Your task to perform on an android device: toggle show notifications on the lock screen Image 0: 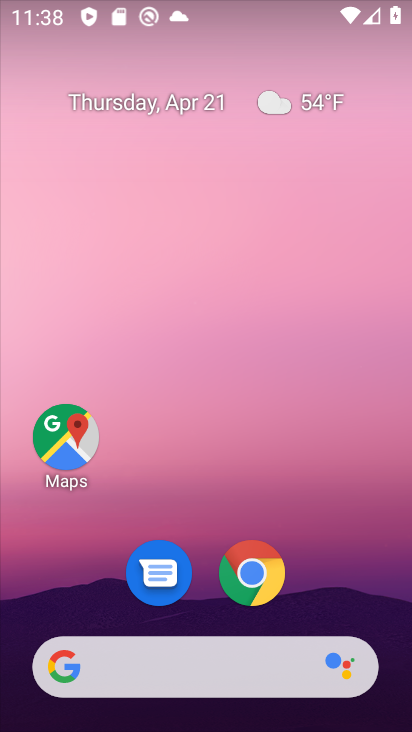
Step 0: drag from (349, 507) to (356, 96)
Your task to perform on an android device: toggle show notifications on the lock screen Image 1: 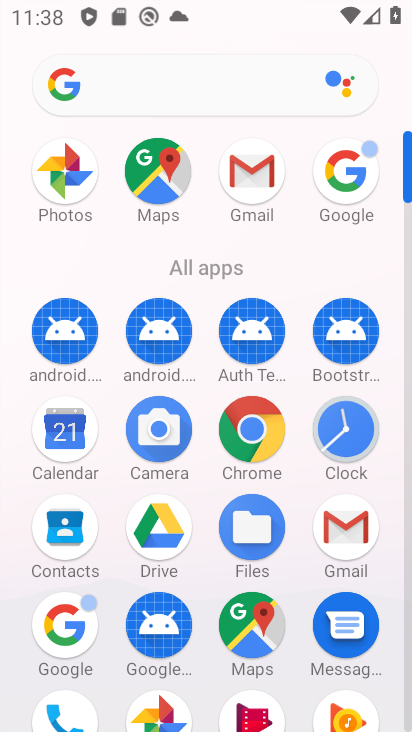
Step 1: drag from (293, 579) to (306, 335)
Your task to perform on an android device: toggle show notifications on the lock screen Image 2: 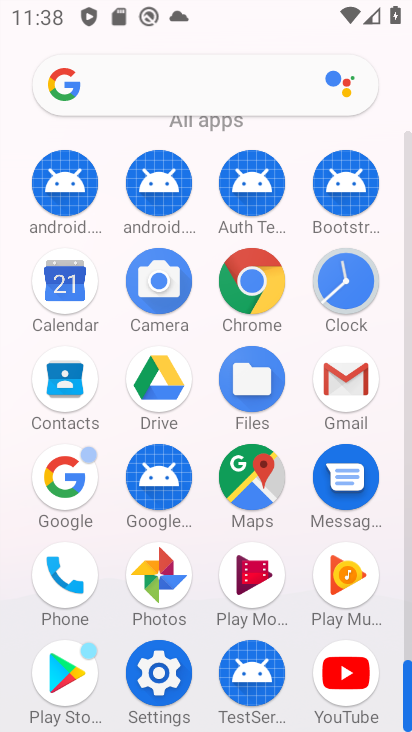
Step 2: click (149, 661)
Your task to perform on an android device: toggle show notifications on the lock screen Image 3: 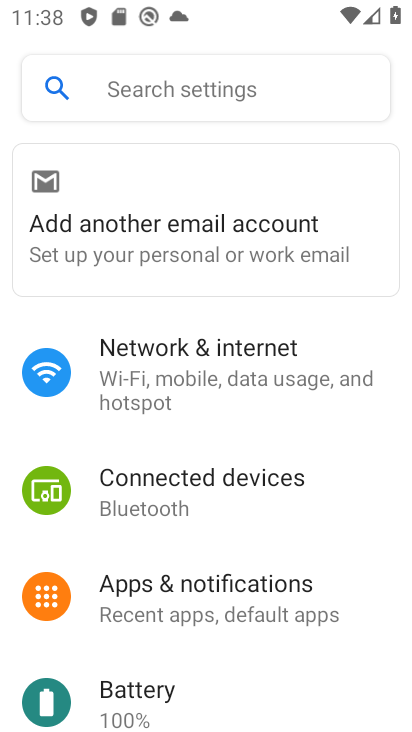
Step 3: drag from (293, 504) to (301, 348)
Your task to perform on an android device: toggle show notifications on the lock screen Image 4: 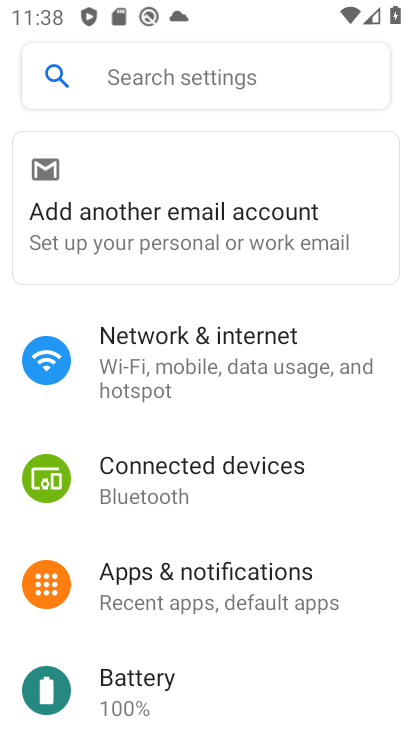
Step 4: drag from (248, 657) to (284, 383)
Your task to perform on an android device: toggle show notifications on the lock screen Image 5: 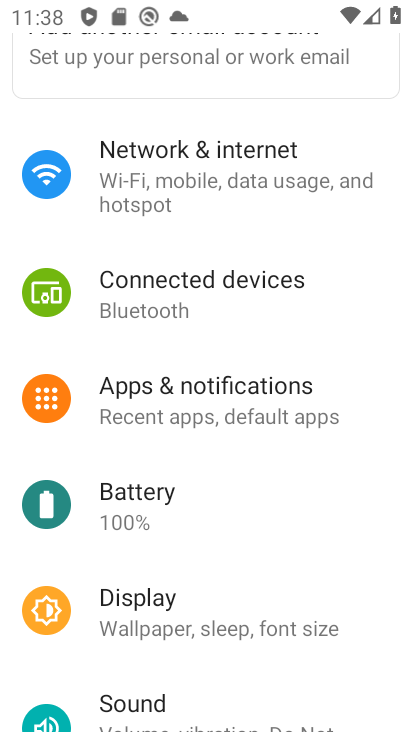
Step 5: drag from (250, 568) to (313, 280)
Your task to perform on an android device: toggle show notifications on the lock screen Image 6: 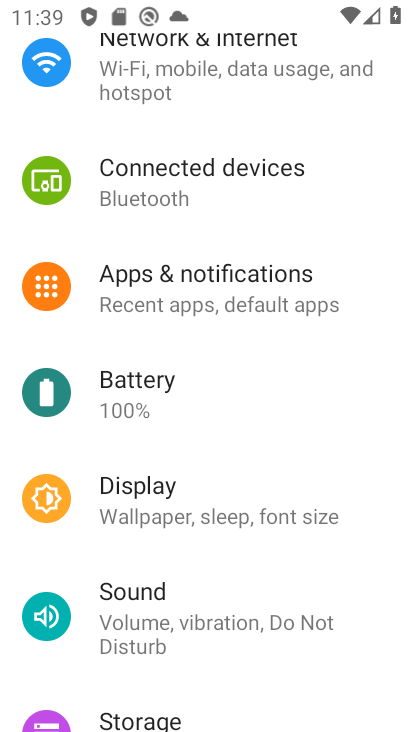
Step 6: click (265, 301)
Your task to perform on an android device: toggle show notifications on the lock screen Image 7: 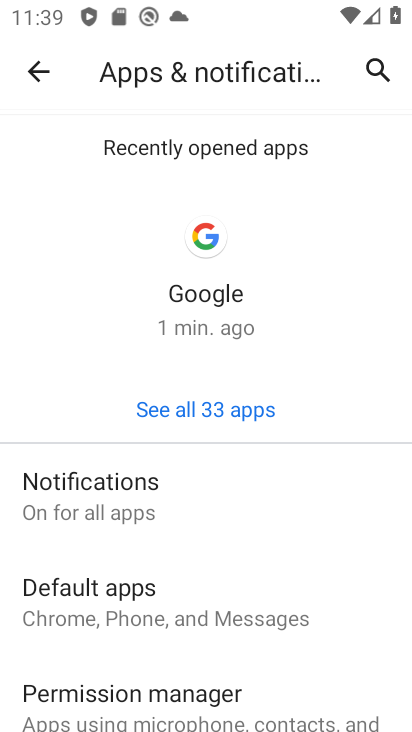
Step 7: click (132, 481)
Your task to perform on an android device: toggle show notifications on the lock screen Image 8: 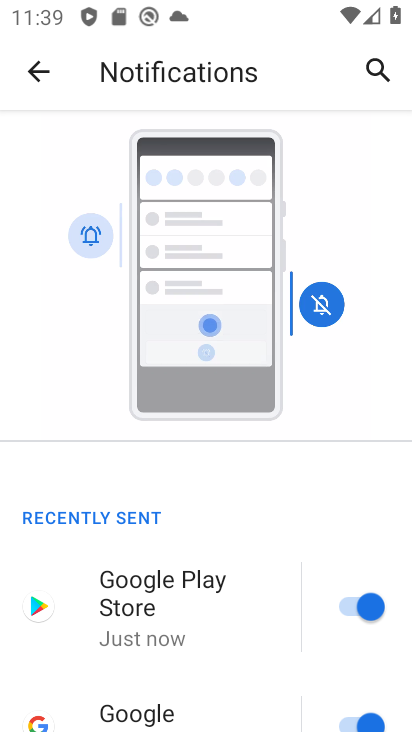
Step 8: drag from (254, 419) to (328, 158)
Your task to perform on an android device: toggle show notifications on the lock screen Image 9: 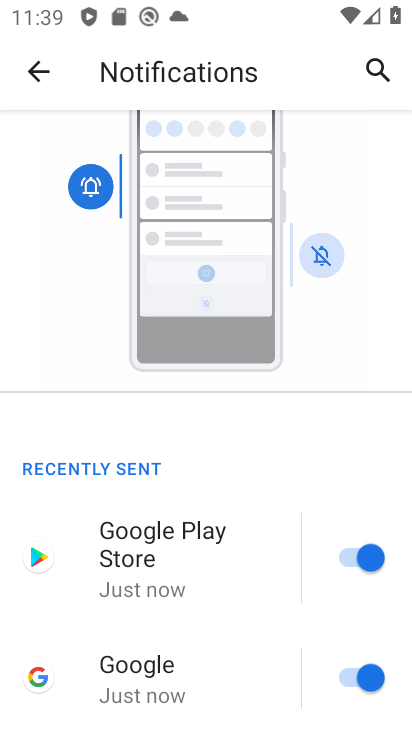
Step 9: drag from (222, 660) to (280, 300)
Your task to perform on an android device: toggle show notifications on the lock screen Image 10: 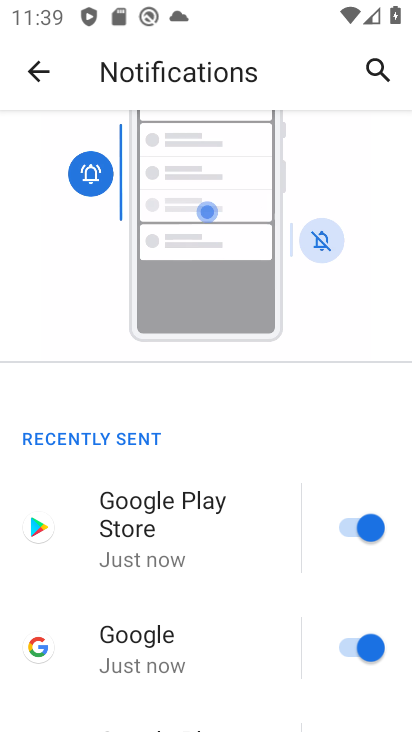
Step 10: drag from (235, 680) to (321, 343)
Your task to perform on an android device: toggle show notifications on the lock screen Image 11: 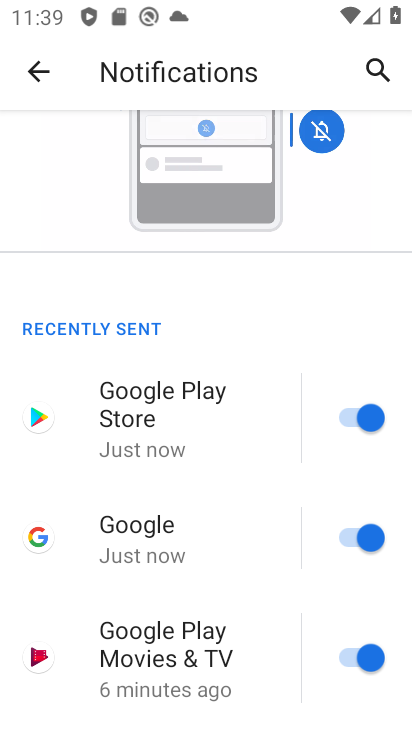
Step 11: drag from (249, 714) to (305, 288)
Your task to perform on an android device: toggle show notifications on the lock screen Image 12: 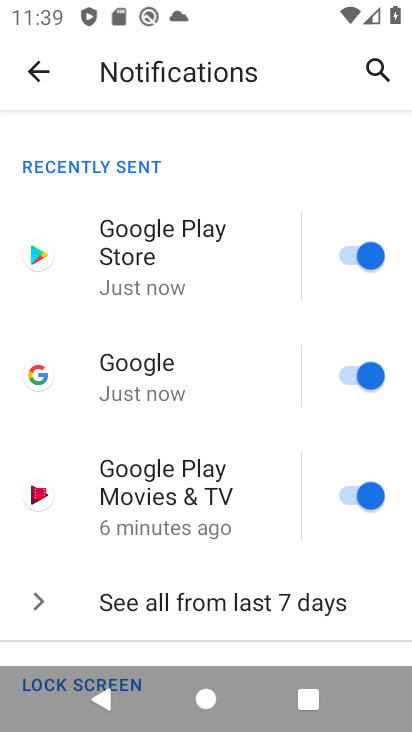
Step 12: drag from (138, 645) to (252, 343)
Your task to perform on an android device: toggle show notifications on the lock screen Image 13: 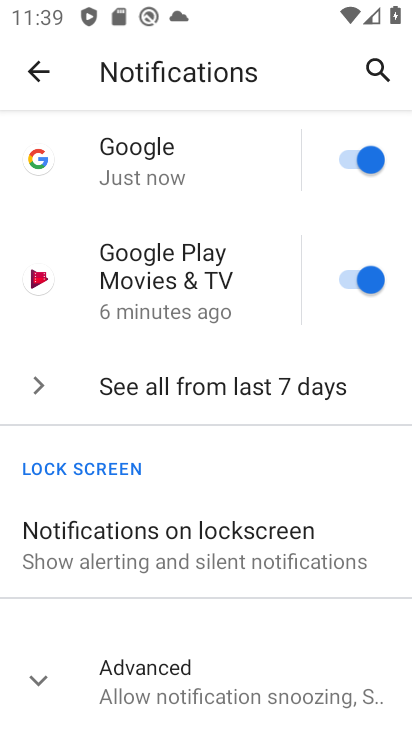
Step 13: click (227, 555)
Your task to perform on an android device: toggle show notifications on the lock screen Image 14: 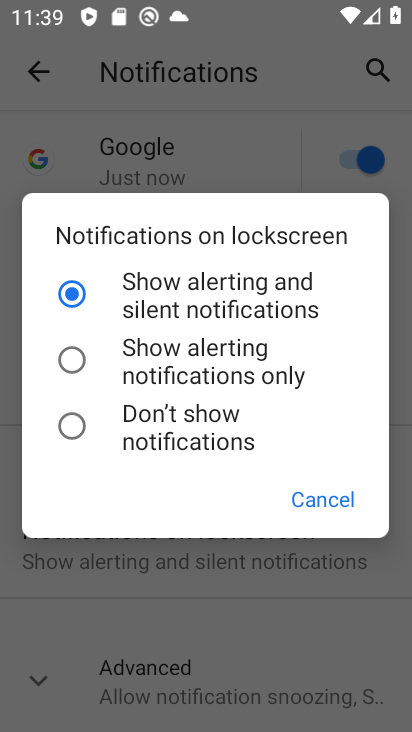
Step 14: click (66, 426)
Your task to perform on an android device: toggle show notifications on the lock screen Image 15: 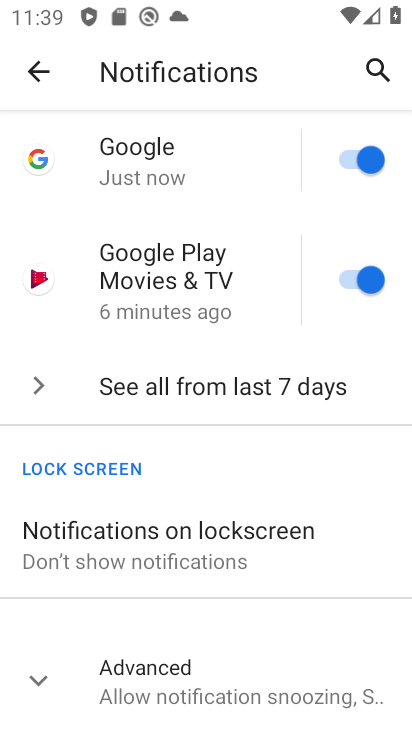
Step 15: task complete